Your task to perform on an android device: Do I have any events tomorrow? Image 0: 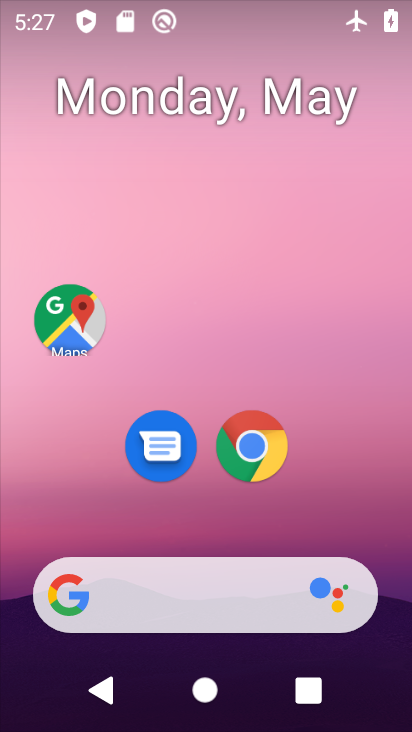
Step 0: drag from (342, 499) to (250, 43)
Your task to perform on an android device: Do I have any events tomorrow? Image 1: 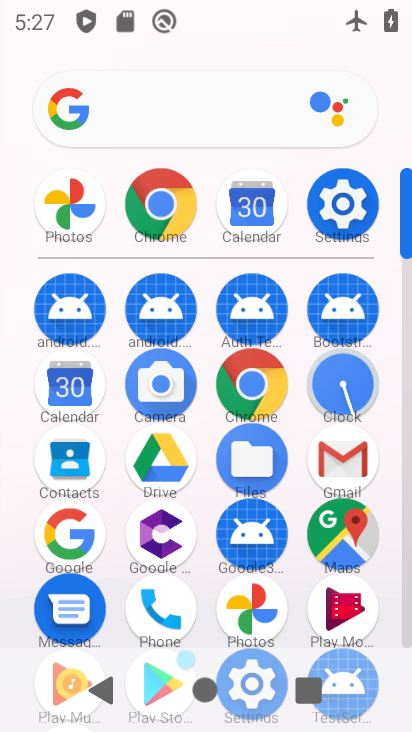
Step 1: click (78, 379)
Your task to perform on an android device: Do I have any events tomorrow? Image 2: 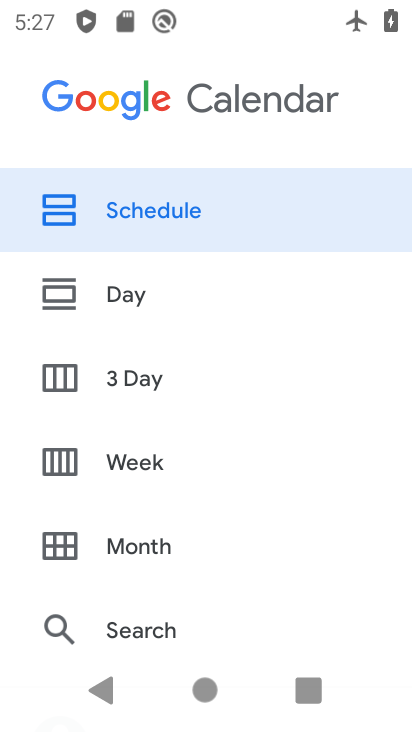
Step 2: click (107, 295)
Your task to perform on an android device: Do I have any events tomorrow? Image 3: 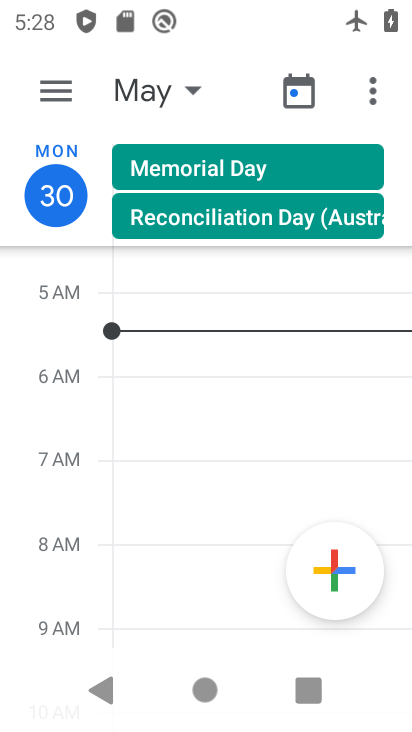
Step 3: drag from (204, 469) to (217, 253)
Your task to perform on an android device: Do I have any events tomorrow? Image 4: 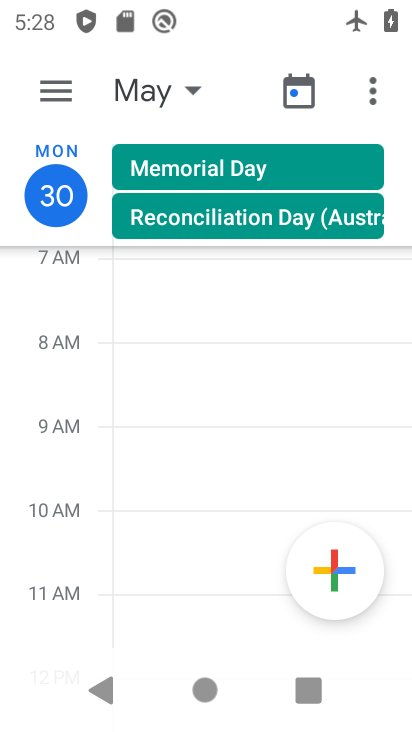
Step 4: click (194, 85)
Your task to perform on an android device: Do I have any events tomorrow? Image 5: 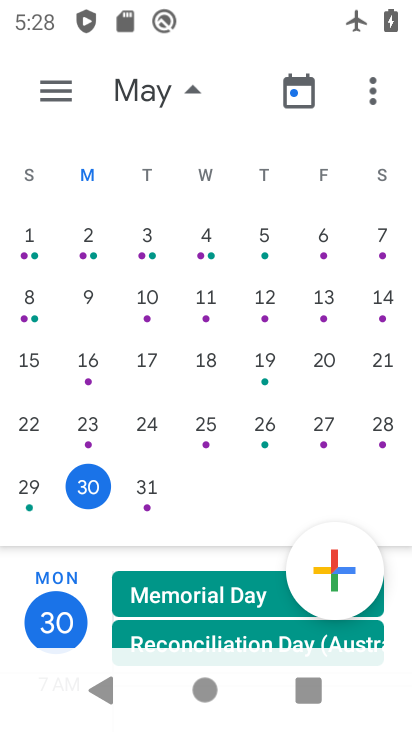
Step 5: click (147, 493)
Your task to perform on an android device: Do I have any events tomorrow? Image 6: 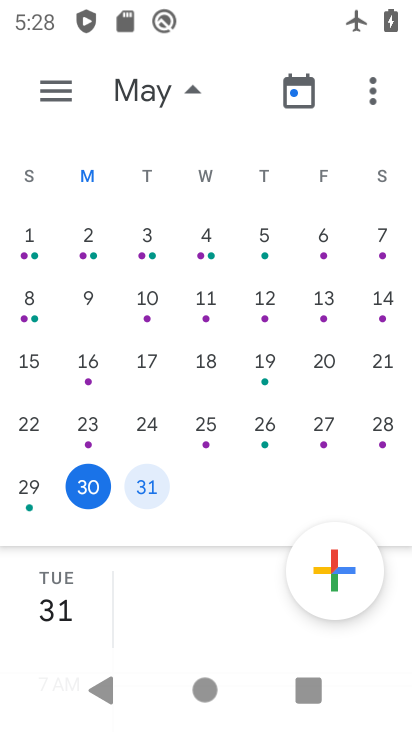
Step 6: click (141, 482)
Your task to perform on an android device: Do I have any events tomorrow? Image 7: 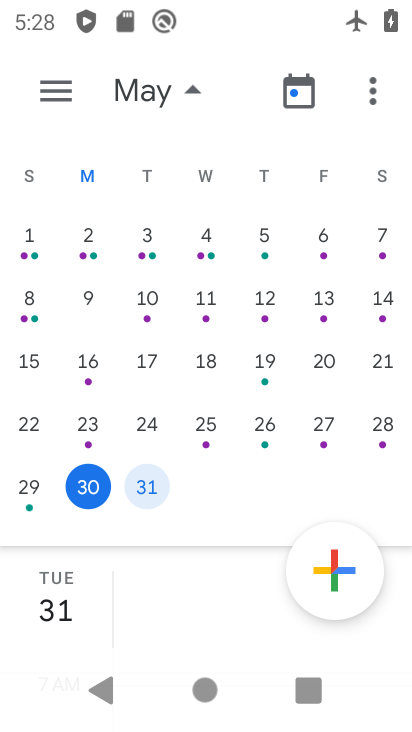
Step 7: task complete